Your task to perform on an android device: Go to network settings Image 0: 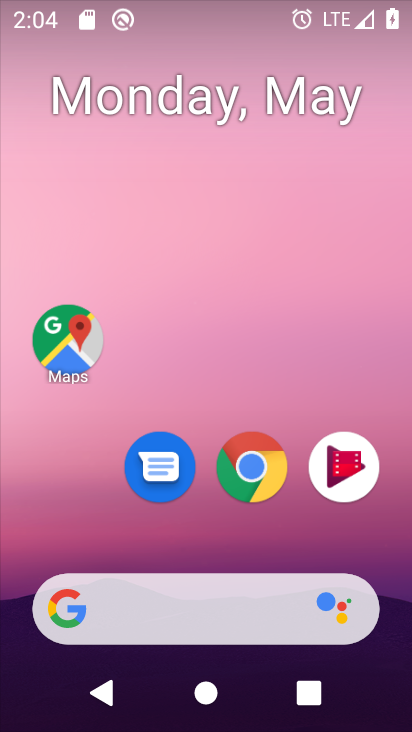
Step 0: drag from (252, 502) to (252, 294)
Your task to perform on an android device: Go to network settings Image 1: 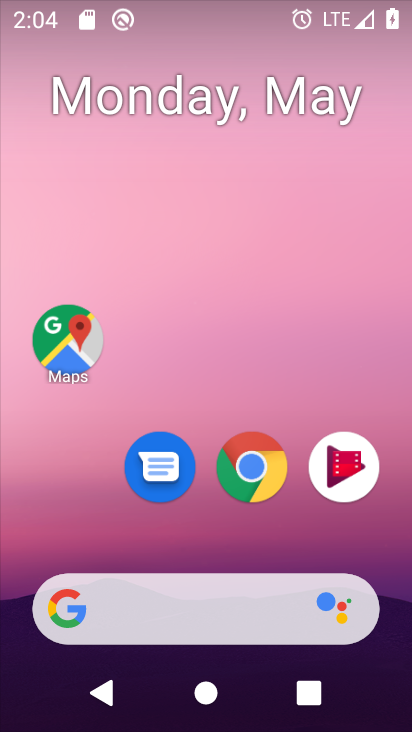
Step 1: drag from (223, 616) to (263, 279)
Your task to perform on an android device: Go to network settings Image 2: 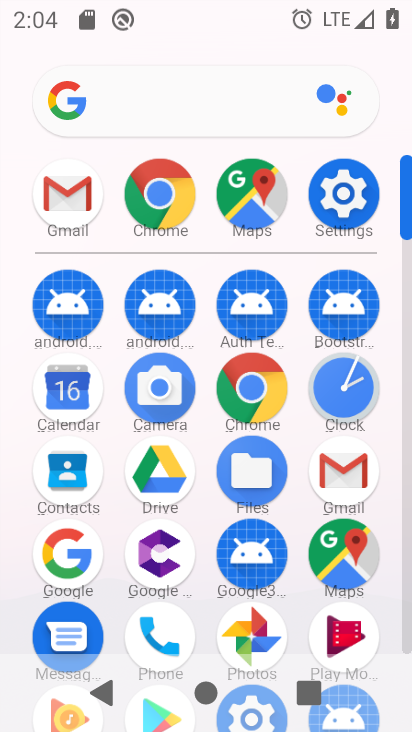
Step 2: click (356, 184)
Your task to perform on an android device: Go to network settings Image 3: 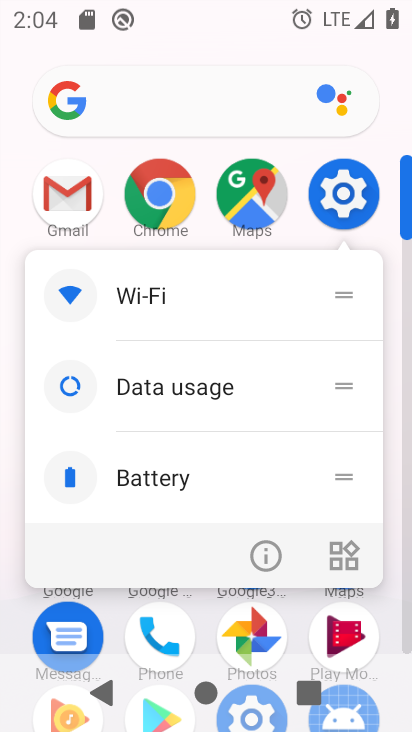
Step 3: click (315, 180)
Your task to perform on an android device: Go to network settings Image 4: 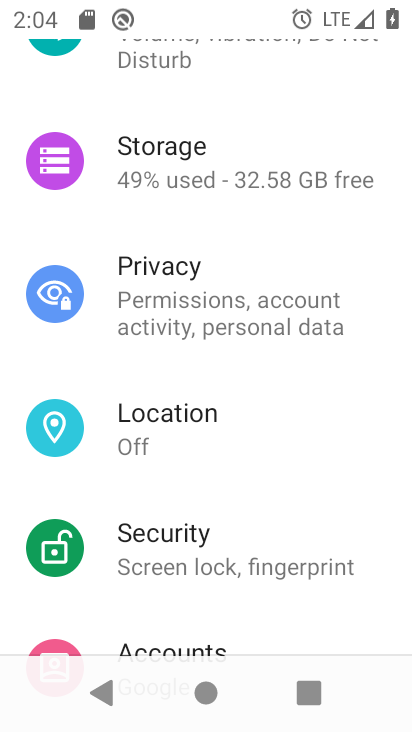
Step 4: drag from (214, 168) to (185, 590)
Your task to perform on an android device: Go to network settings Image 5: 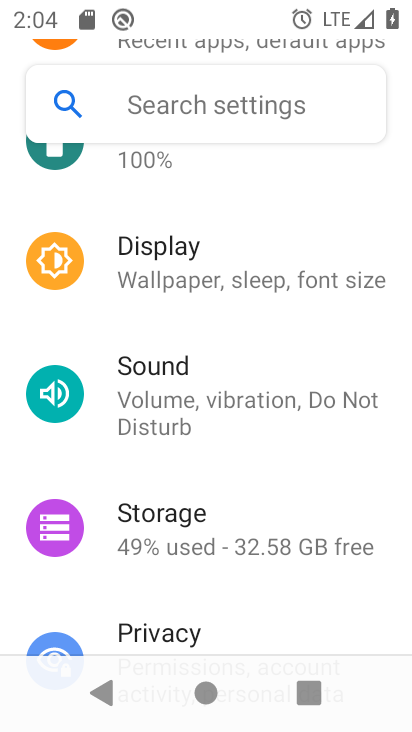
Step 5: drag from (261, 188) to (196, 654)
Your task to perform on an android device: Go to network settings Image 6: 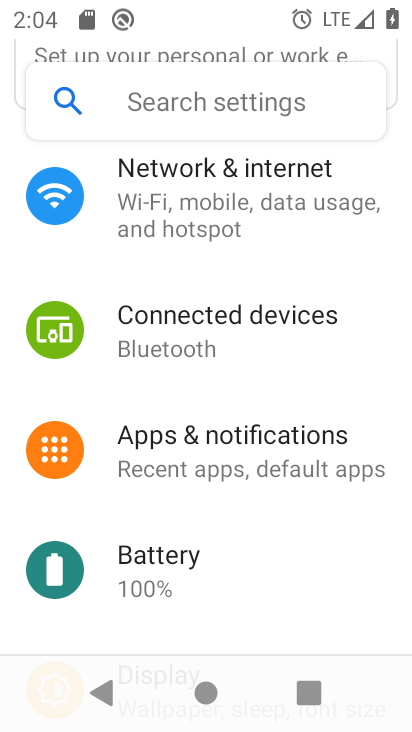
Step 6: drag from (223, 209) to (156, 599)
Your task to perform on an android device: Go to network settings Image 7: 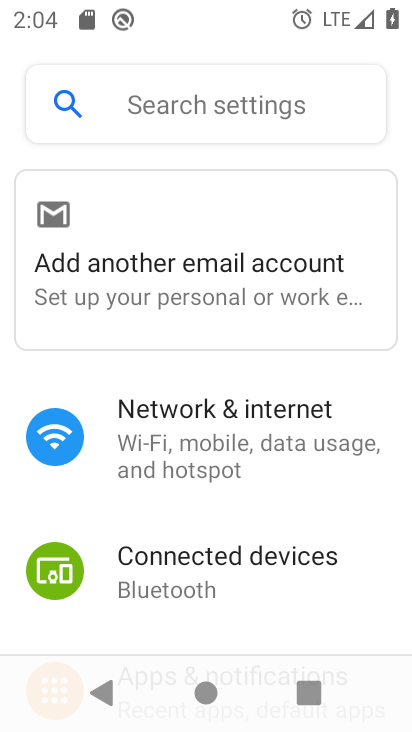
Step 7: click (223, 249)
Your task to perform on an android device: Go to network settings Image 8: 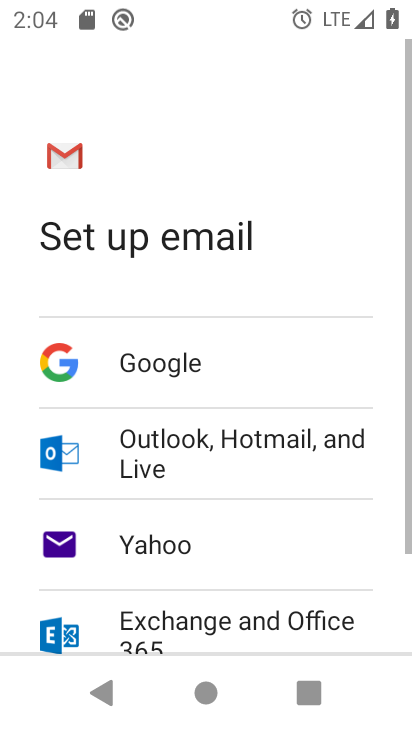
Step 8: press back button
Your task to perform on an android device: Go to network settings Image 9: 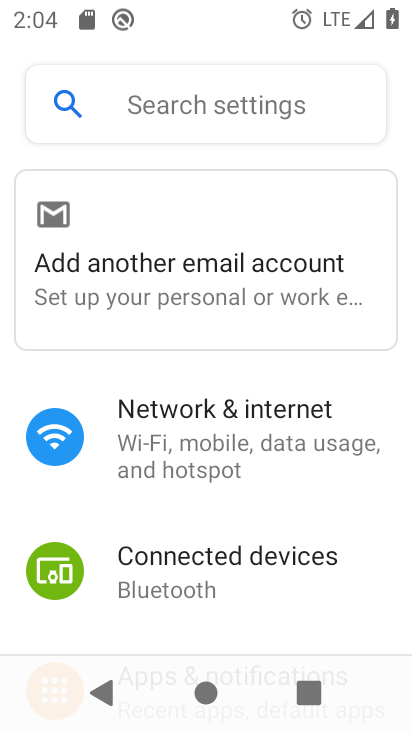
Step 9: click (231, 241)
Your task to perform on an android device: Go to network settings Image 10: 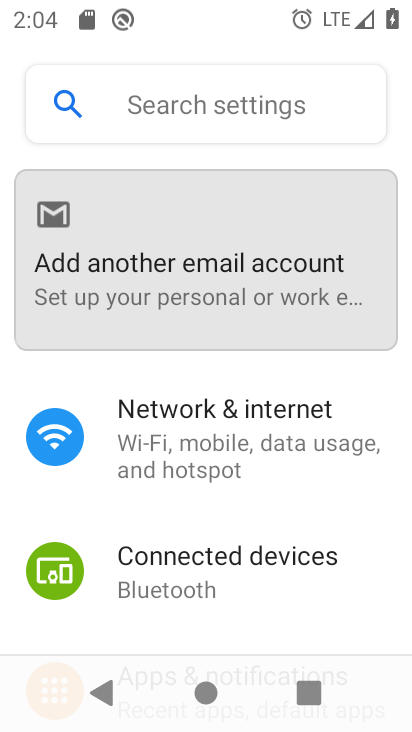
Step 10: click (231, 443)
Your task to perform on an android device: Go to network settings Image 11: 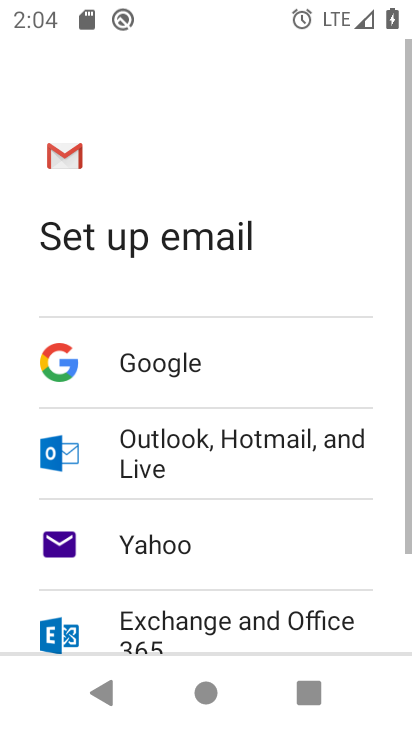
Step 11: press back button
Your task to perform on an android device: Go to network settings Image 12: 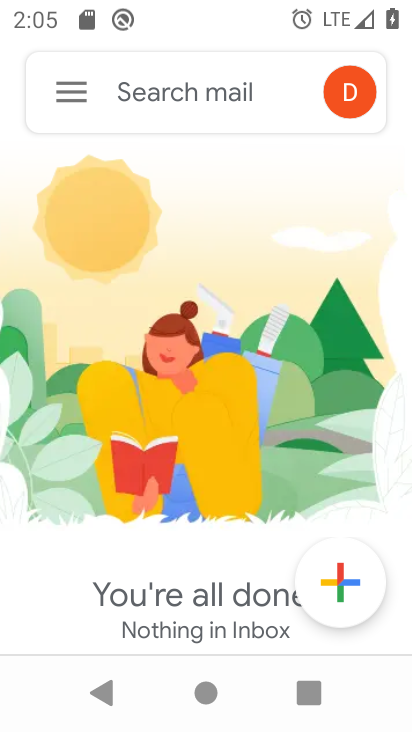
Step 12: press back button
Your task to perform on an android device: Go to network settings Image 13: 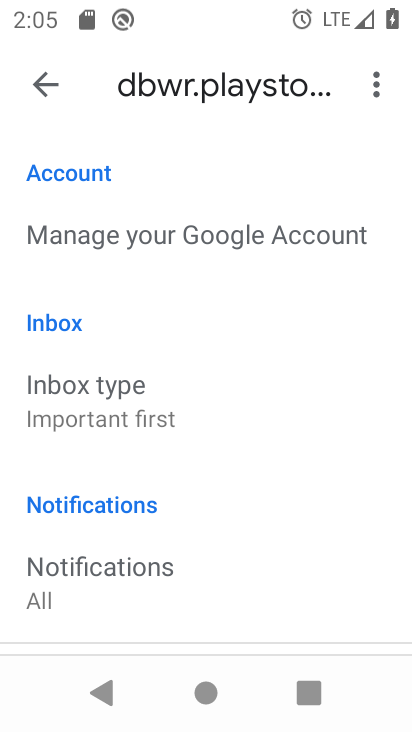
Step 13: press home button
Your task to perform on an android device: Go to network settings Image 14: 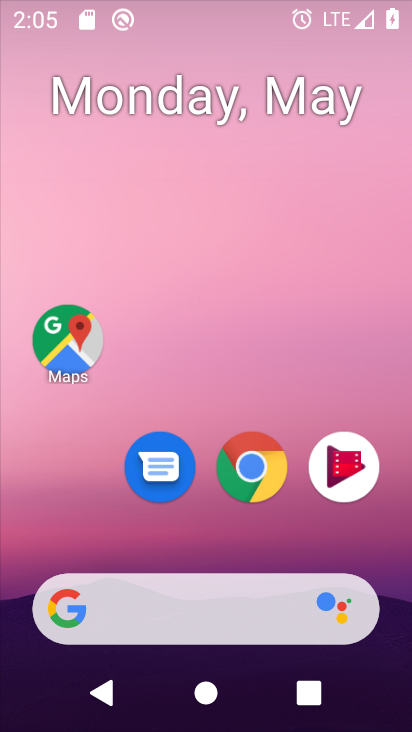
Step 14: drag from (234, 564) to (247, 320)
Your task to perform on an android device: Go to network settings Image 15: 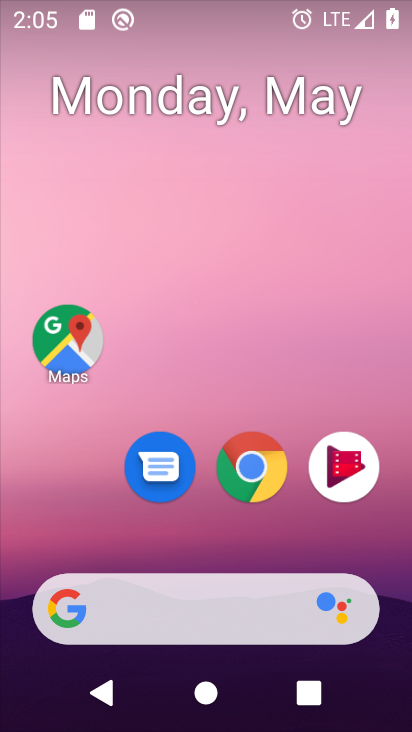
Step 15: drag from (237, 505) to (287, 167)
Your task to perform on an android device: Go to network settings Image 16: 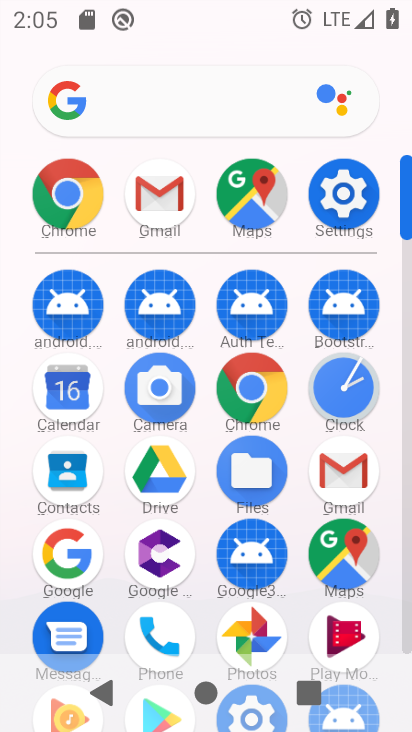
Step 16: click (345, 190)
Your task to perform on an android device: Go to network settings Image 17: 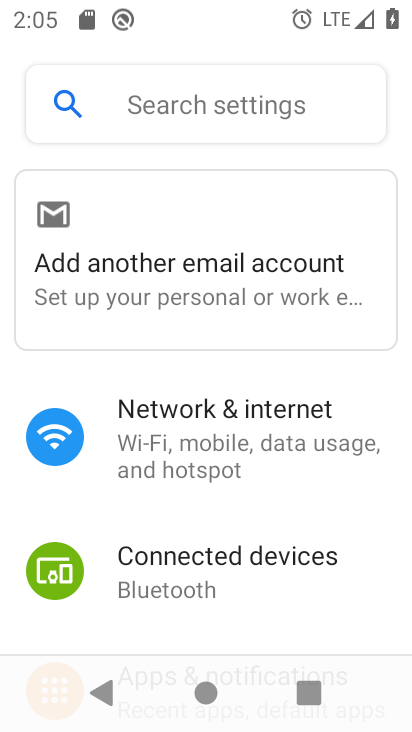
Step 17: click (220, 434)
Your task to perform on an android device: Go to network settings Image 18: 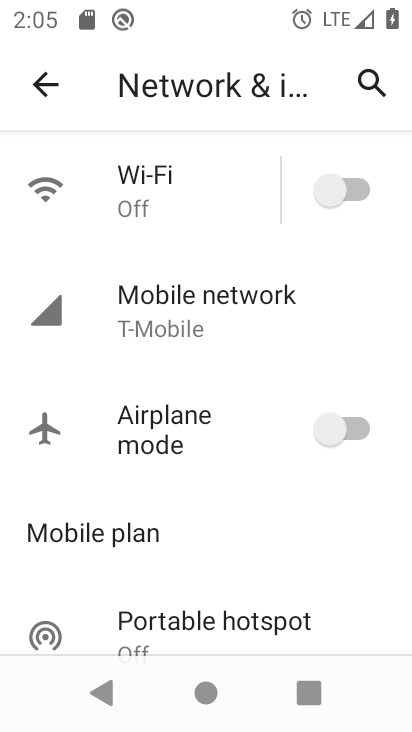
Step 18: task complete